Your task to perform on an android device: Open calendar and show me the third week of next month Image 0: 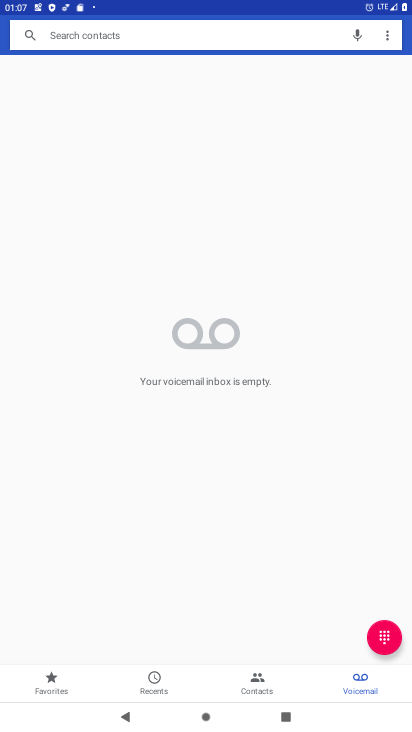
Step 0: press home button
Your task to perform on an android device: Open calendar and show me the third week of next month Image 1: 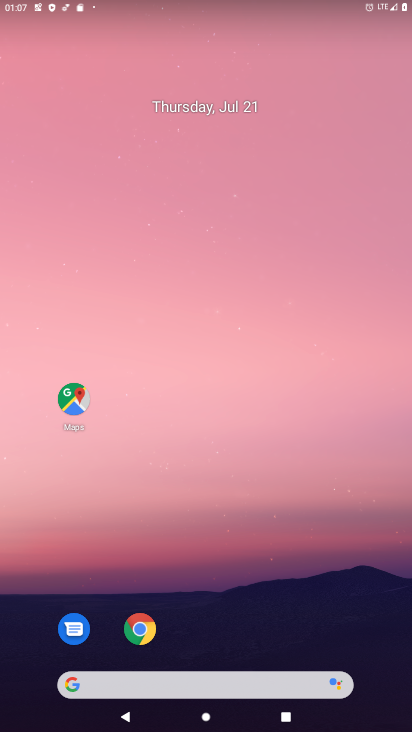
Step 1: drag from (315, 434) to (324, 50)
Your task to perform on an android device: Open calendar and show me the third week of next month Image 2: 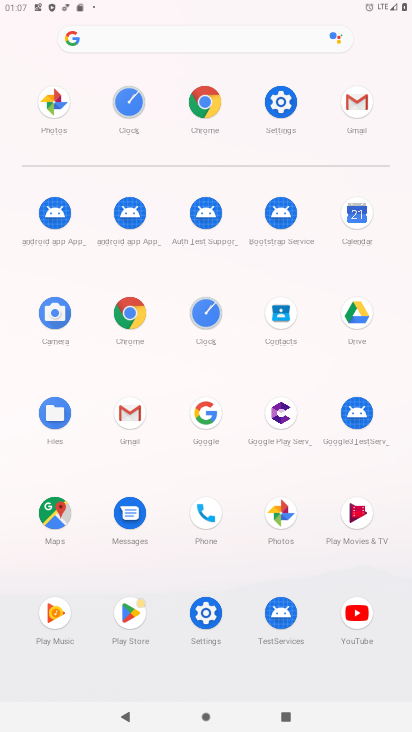
Step 2: click (360, 209)
Your task to perform on an android device: Open calendar and show me the third week of next month Image 3: 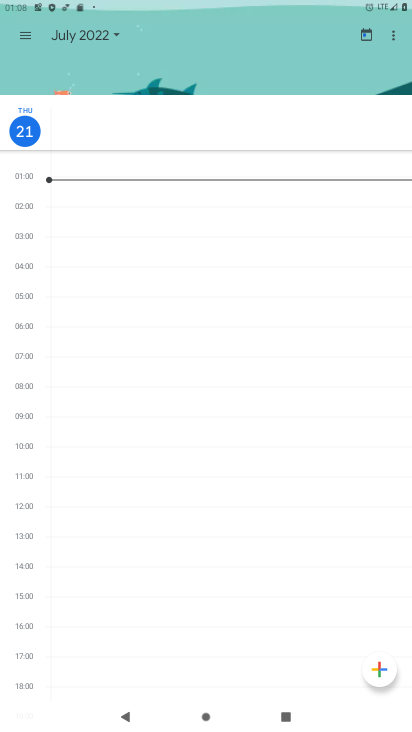
Step 3: drag from (395, 28) to (189, 397)
Your task to perform on an android device: Open calendar and show me the third week of next month Image 4: 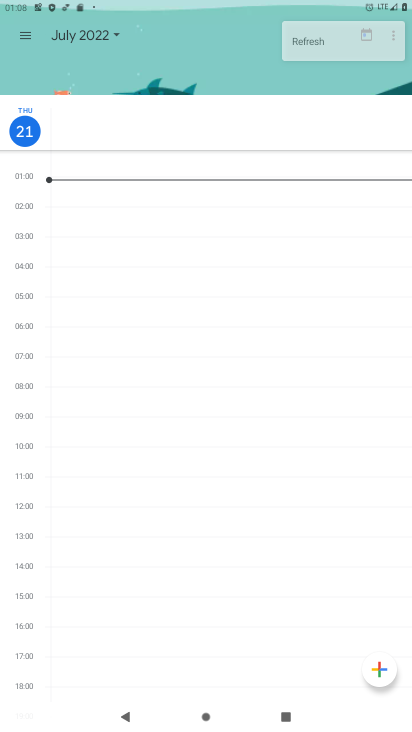
Step 4: click (165, 347)
Your task to perform on an android device: Open calendar and show me the third week of next month Image 5: 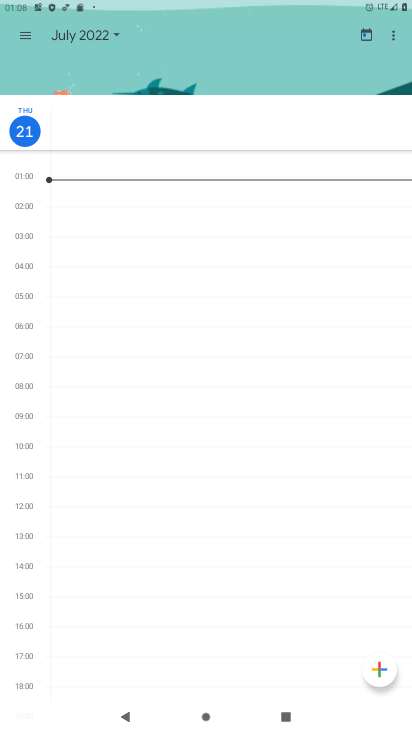
Step 5: click (98, 36)
Your task to perform on an android device: Open calendar and show me the third week of next month Image 6: 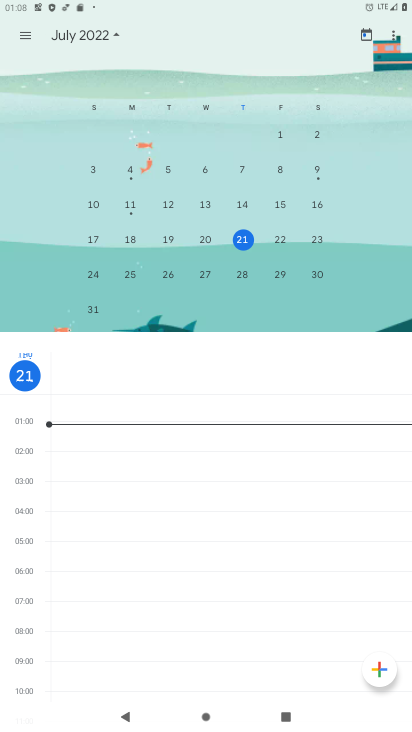
Step 6: drag from (318, 230) to (56, 210)
Your task to perform on an android device: Open calendar and show me the third week of next month Image 7: 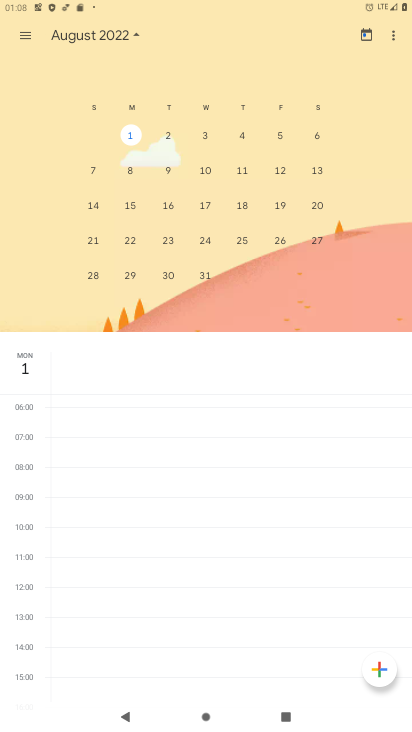
Step 7: click (206, 203)
Your task to perform on an android device: Open calendar and show me the third week of next month Image 8: 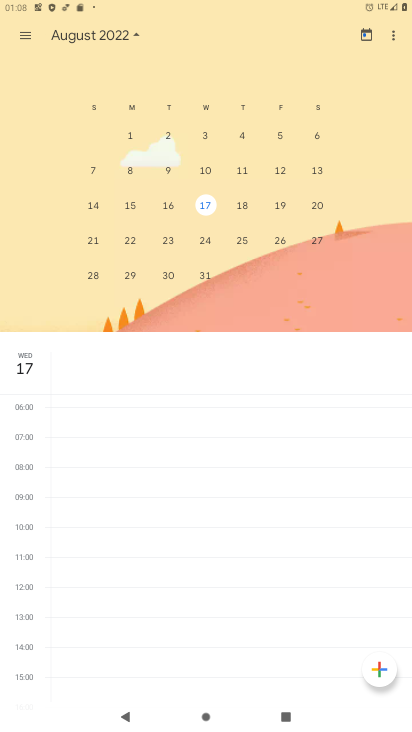
Step 8: click (28, 31)
Your task to perform on an android device: Open calendar and show me the third week of next month Image 9: 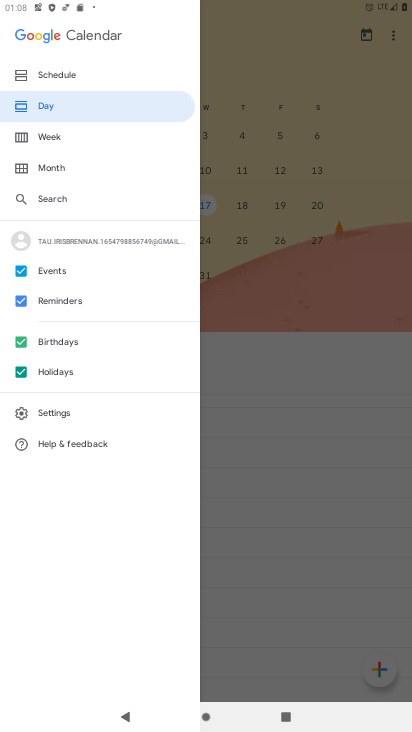
Step 9: click (69, 140)
Your task to perform on an android device: Open calendar and show me the third week of next month Image 10: 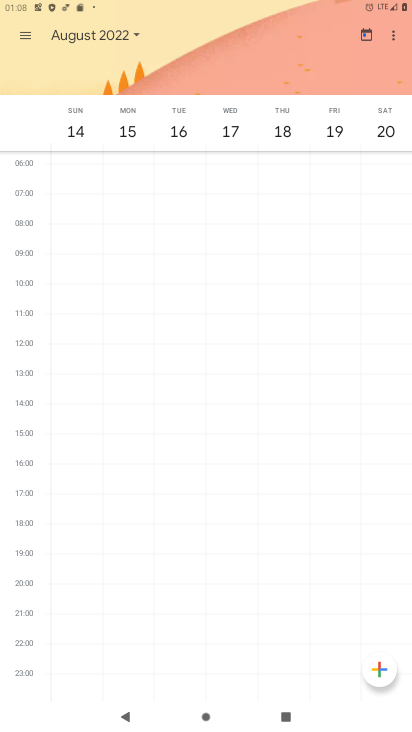
Step 10: task complete